Your task to perform on an android device: Open display settings Image 0: 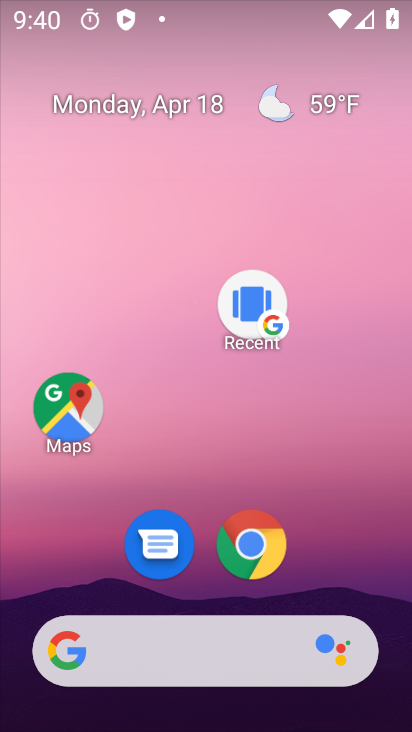
Step 0: drag from (371, 533) to (355, 119)
Your task to perform on an android device: Open display settings Image 1: 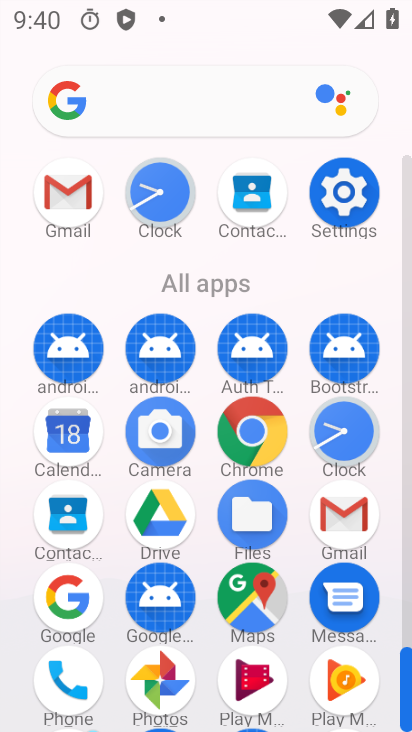
Step 1: click (342, 191)
Your task to perform on an android device: Open display settings Image 2: 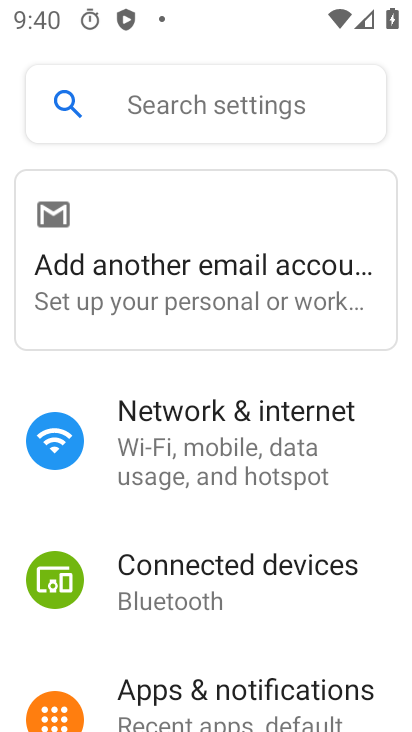
Step 2: drag from (285, 631) to (226, 196)
Your task to perform on an android device: Open display settings Image 3: 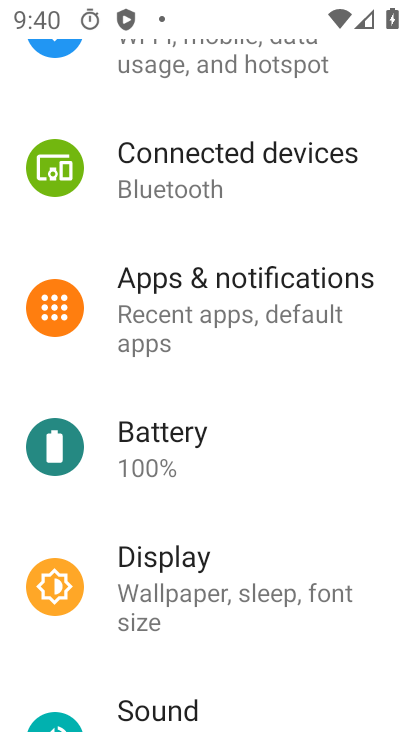
Step 3: click (266, 560)
Your task to perform on an android device: Open display settings Image 4: 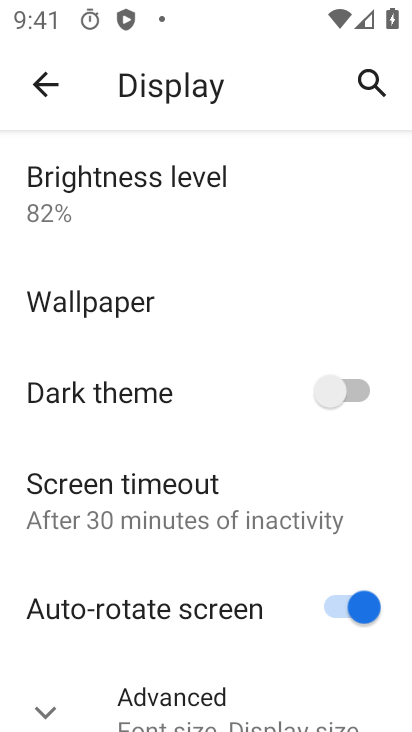
Step 4: task complete